Your task to perform on an android device: Open Yahoo.com Image 0: 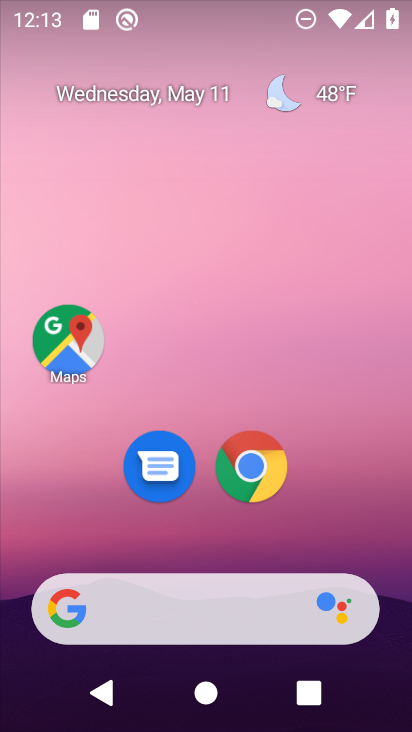
Step 0: press home button
Your task to perform on an android device: Open Yahoo.com Image 1: 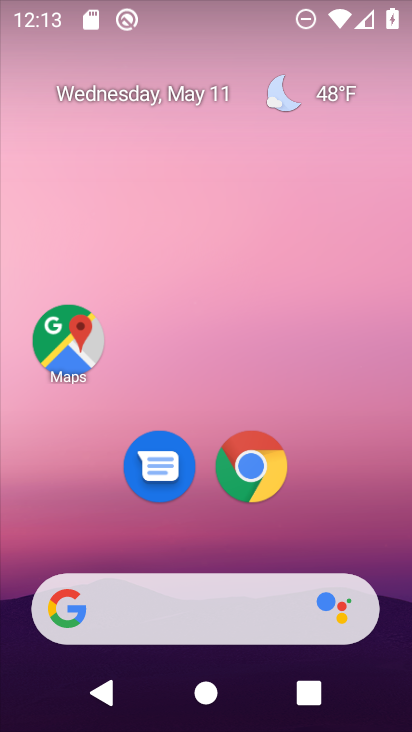
Step 1: drag from (199, 545) to (234, 17)
Your task to perform on an android device: Open Yahoo.com Image 2: 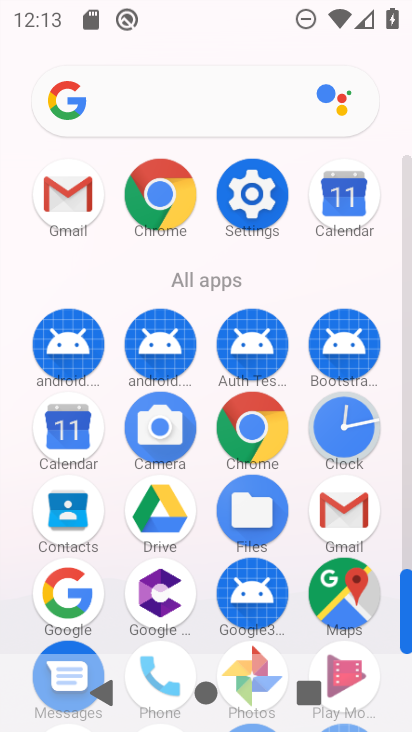
Step 2: click (157, 187)
Your task to perform on an android device: Open Yahoo.com Image 3: 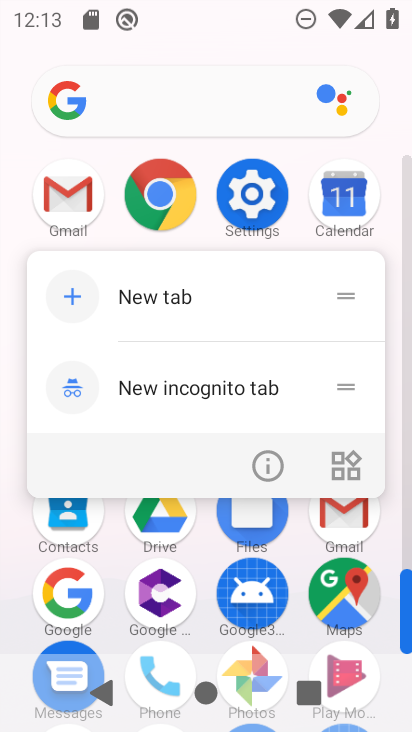
Step 3: click (155, 187)
Your task to perform on an android device: Open Yahoo.com Image 4: 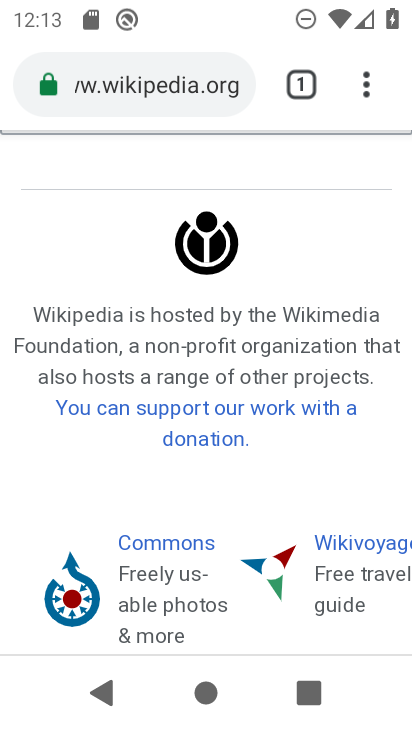
Step 4: click (301, 81)
Your task to perform on an android device: Open Yahoo.com Image 5: 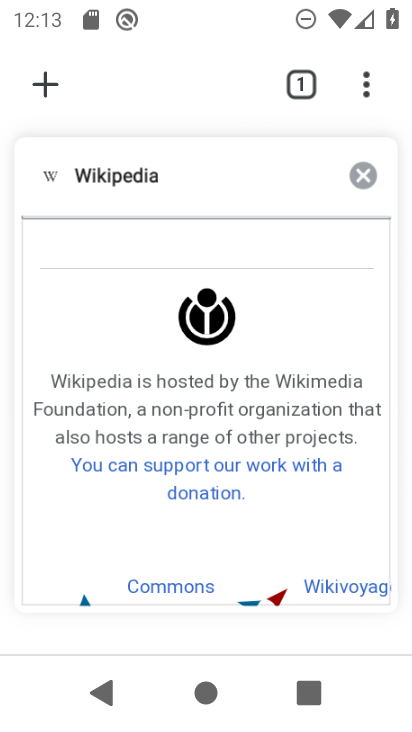
Step 5: click (359, 168)
Your task to perform on an android device: Open Yahoo.com Image 6: 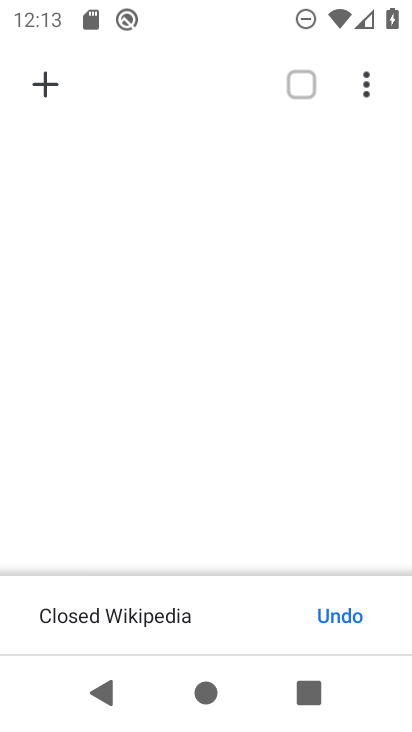
Step 6: click (51, 92)
Your task to perform on an android device: Open Yahoo.com Image 7: 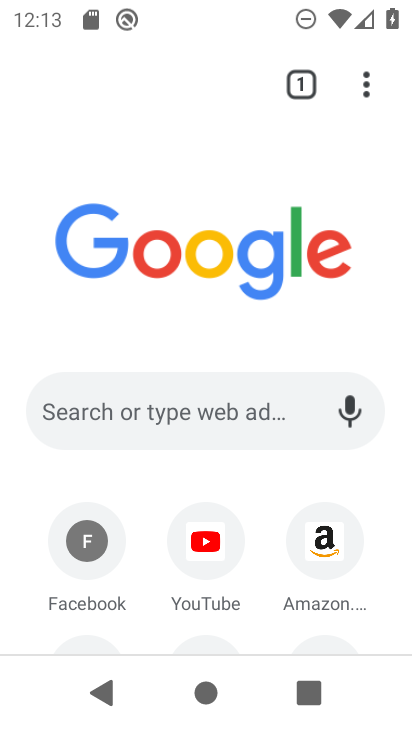
Step 7: click (178, 399)
Your task to perform on an android device: Open Yahoo.com Image 8: 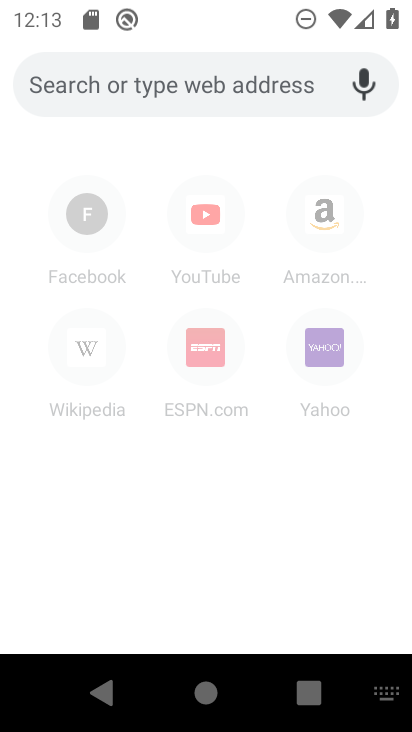
Step 8: click (324, 361)
Your task to perform on an android device: Open Yahoo.com Image 9: 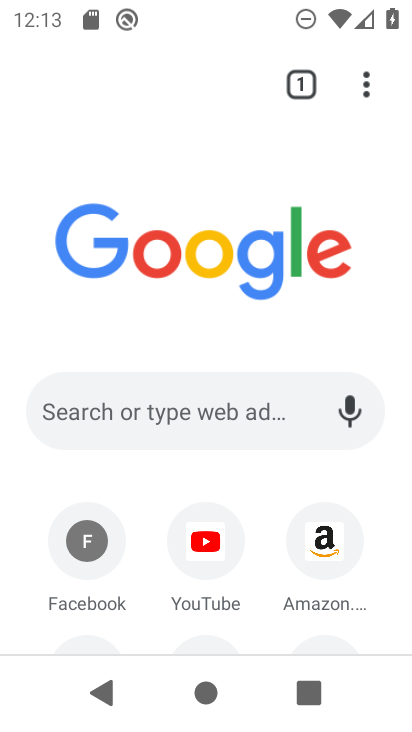
Step 9: drag from (262, 621) to (290, 251)
Your task to perform on an android device: Open Yahoo.com Image 10: 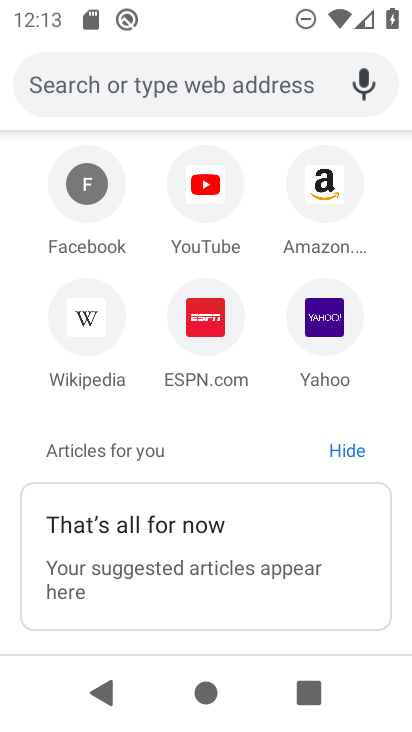
Step 10: click (322, 308)
Your task to perform on an android device: Open Yahoo.com Image 11: 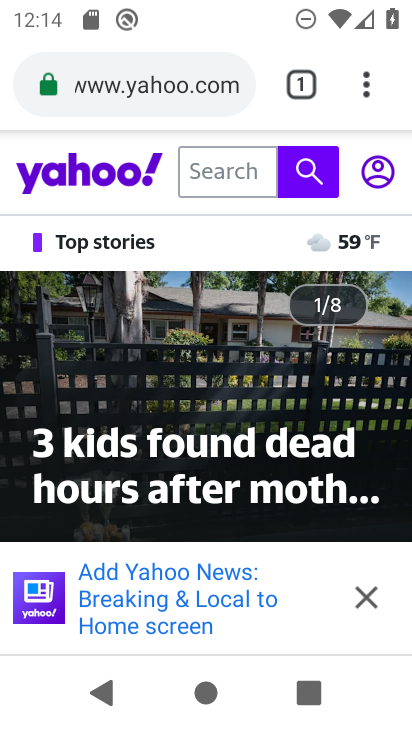
Step 11: task complete